Your task to perform on an android device: What's the weather going to be this weekend? Image 0: 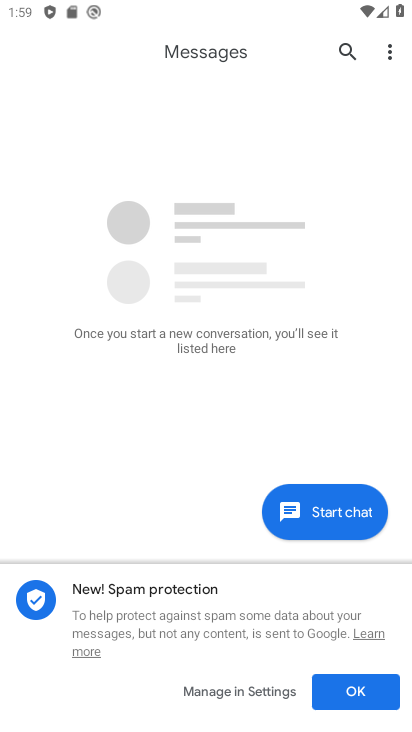
Step 0: press home button
Your task to perform on an android device: What's the weather going to be this weekend? Image 1: 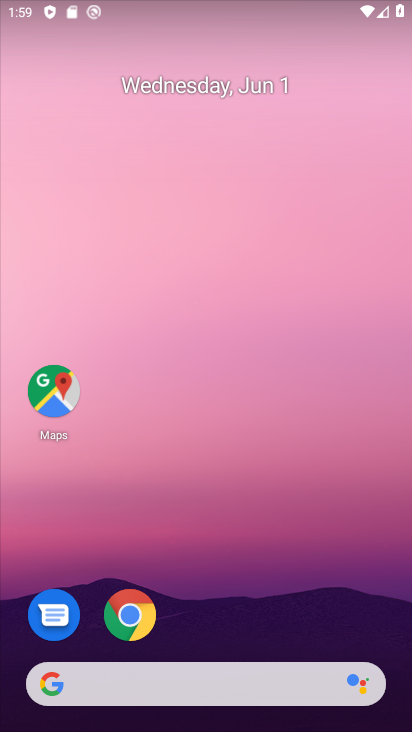
Step 1: drag from (220, 652) to (319, 174)
Your task to perform on an android device: What's the weather going to be this weekend? Image 2: 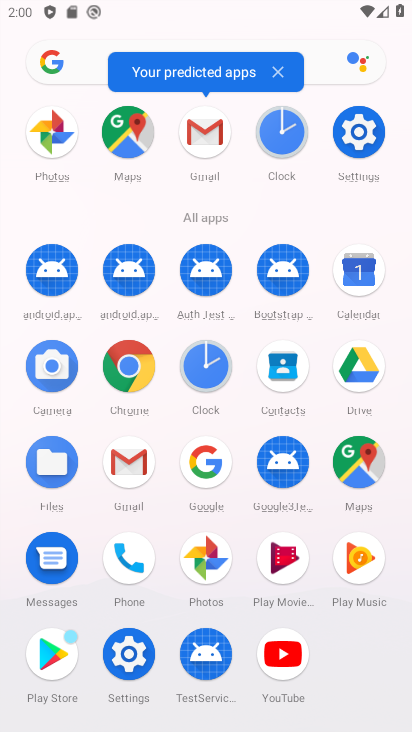
Step 2: click (210, 478)
Your task to perform on an android device: What's the weather going to be this weekend? Image 3: 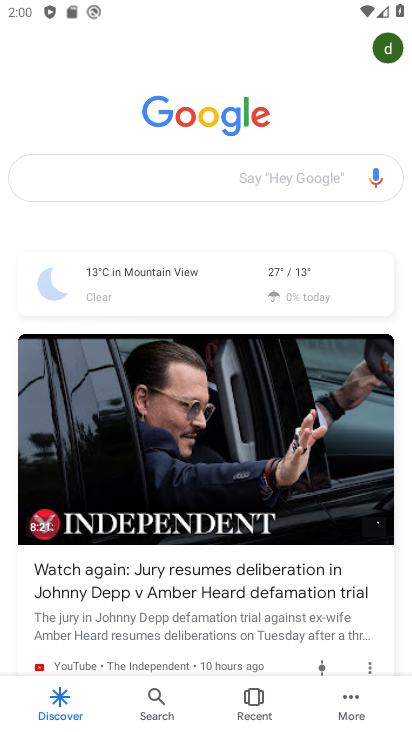
Step 3: click (304, 285)
Your task to perform on an android device: What's the weather going to be this weekend? Image 4: 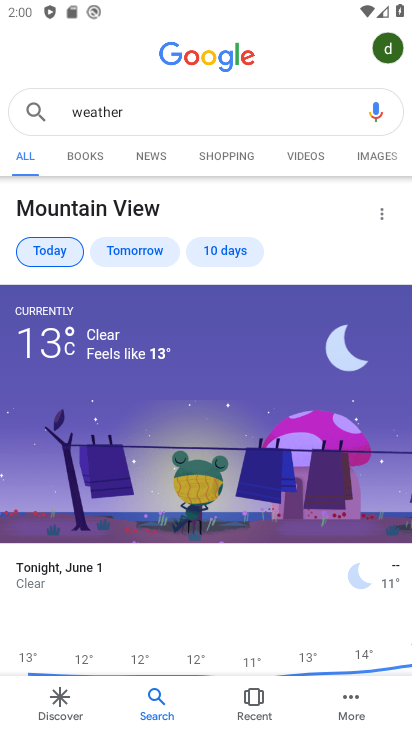
Step 4: drag from (233, 604) to (374, 204)
Your task to perform on an android device: What's the weather going to be this weekend? Image 5: 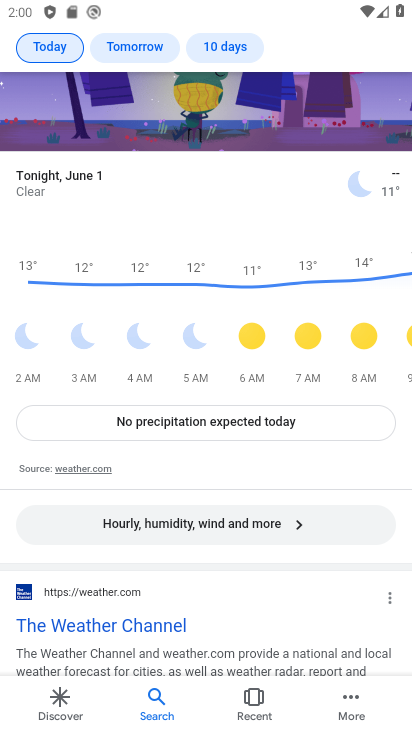
Step 5: drag from (196, 602) to (268, 347)
Your task to perform on an android device: What's the weather going to be this weekend? Image 6: 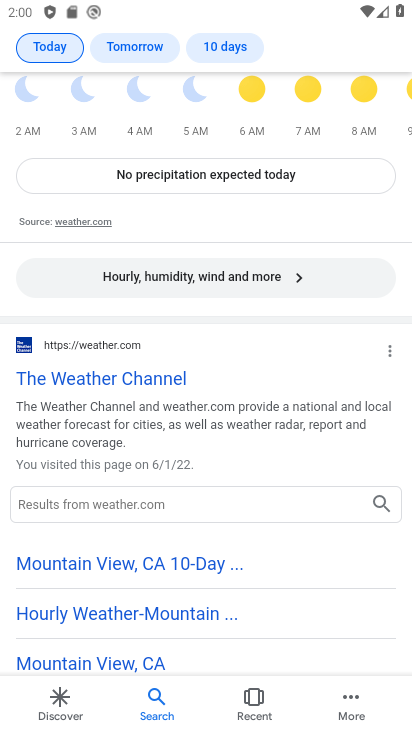
Step 6: click (163, 370)
Your task to perform on an android device: What's the weather going to be this weekend? Image 7: 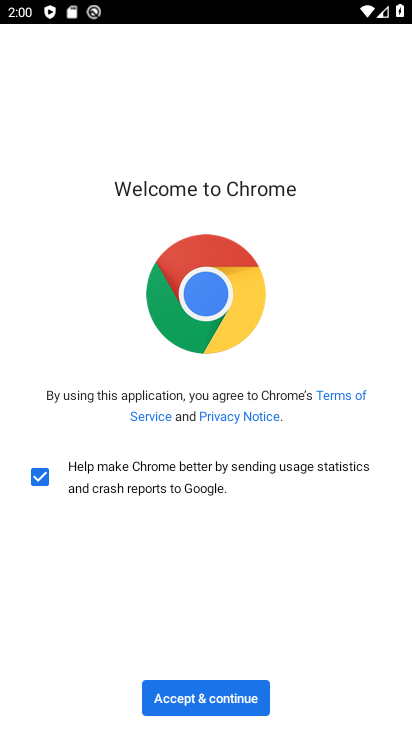
Step 7: click (186, 716)
Your task to perform on an android device: What's the weather going to be this weekend? Image 8: 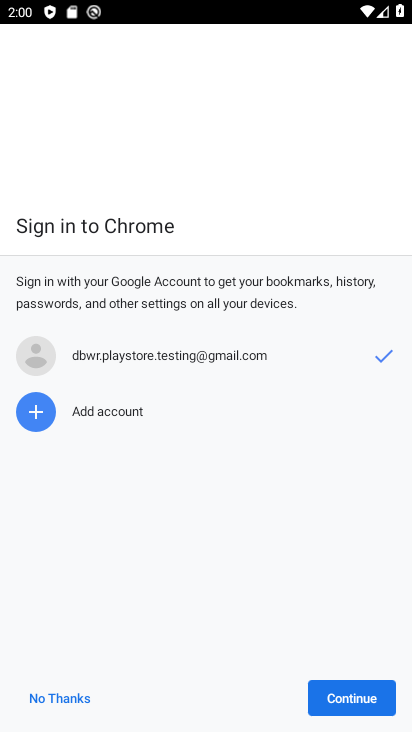
Step 8: click (364, 719)
Your task to perform on an android device: What's the weather going to be this weekend? Image 9: 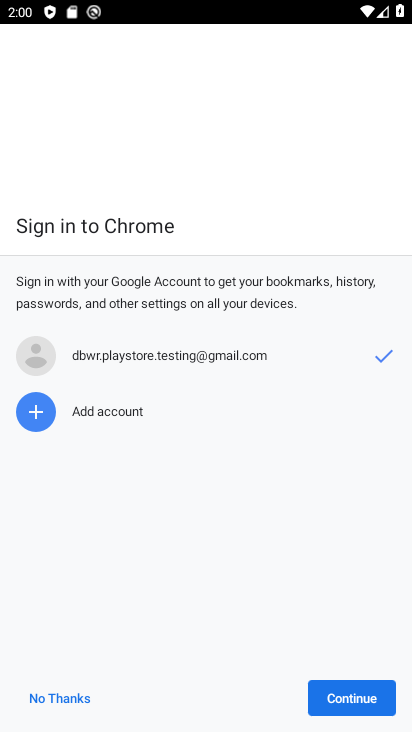
Step 9: click (358, 706)
Your task to perform on an android device: What's the weather going to be this weekend? Image 10: 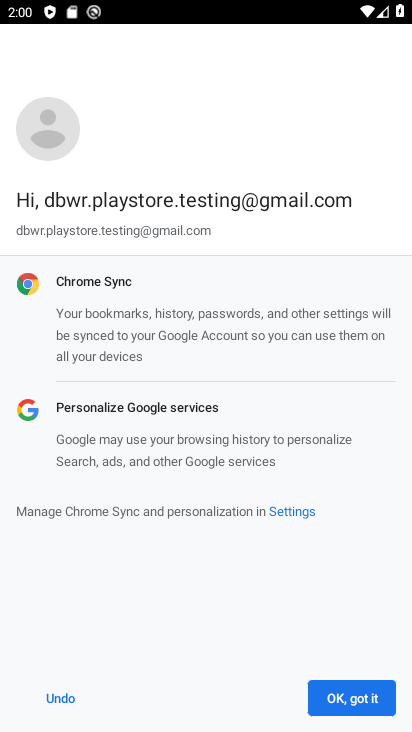
Step 10: click (366, 698)
Your task to perform on an android device: What's the weather going to be this weekend? Image 11: 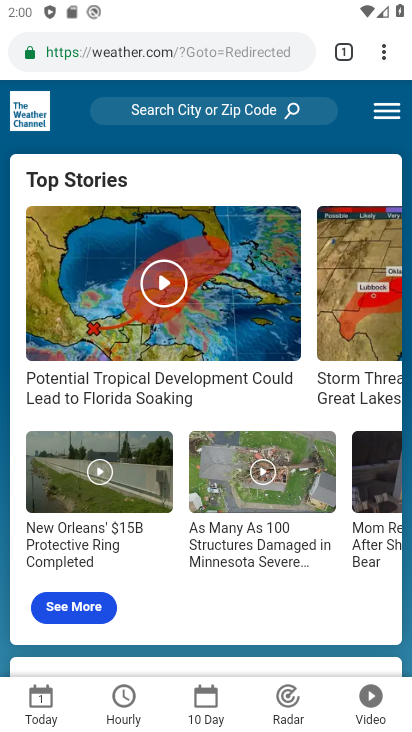
Step 11: click (200, 719)
Your task to perform on an android device: What's the weather going to be this weekend? Image 12: 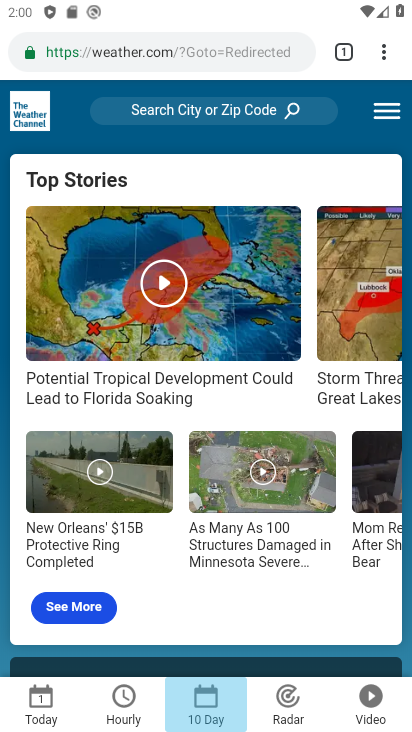
Step 12: click (215, 710)
Your task to perform on an android device: What's the weather going to be this weekend? Image 13: 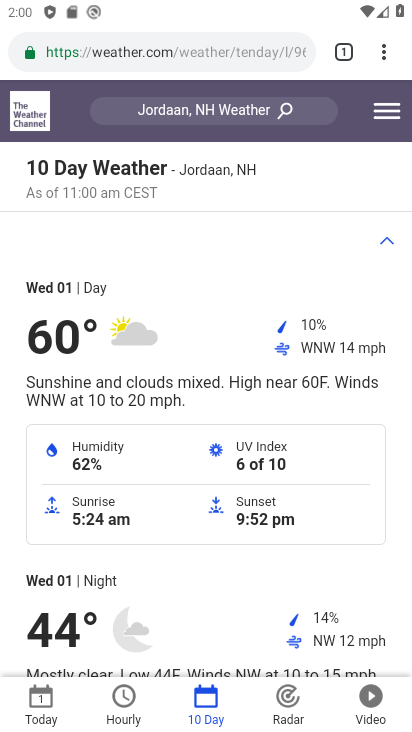
Step 13: task complete